Your task to perform on an android device: turn off smart reply in the gmail app Image 0: 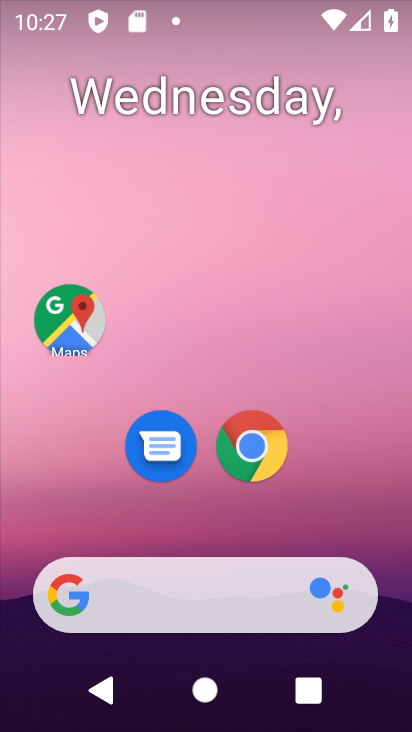
Step 0: drag from (92, 560) to (219, 143)
Your task to perform on an android device: turn off smart reply in the gmail app Image 1: 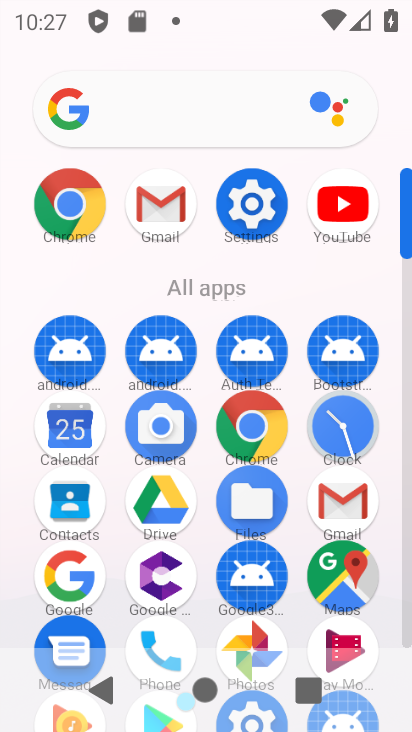
Step 1: click (352, 507)
Your task to perform on an android device: turn off smart reply in the gmail app Image 2: 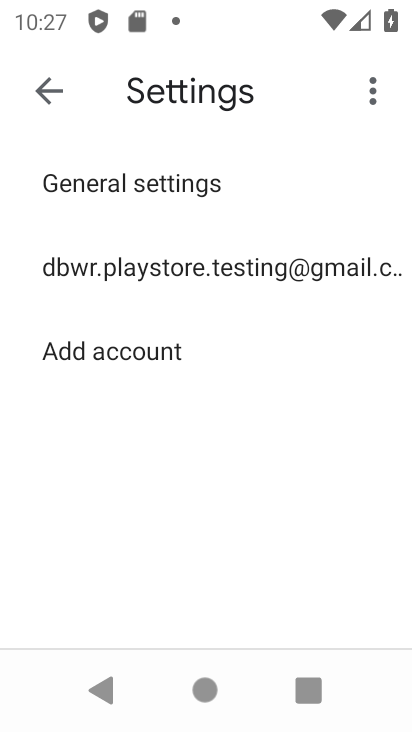
Step 2: click (62, 90)
Your task to perform on an android device: turn off smart reply in the gmail app Image 3: 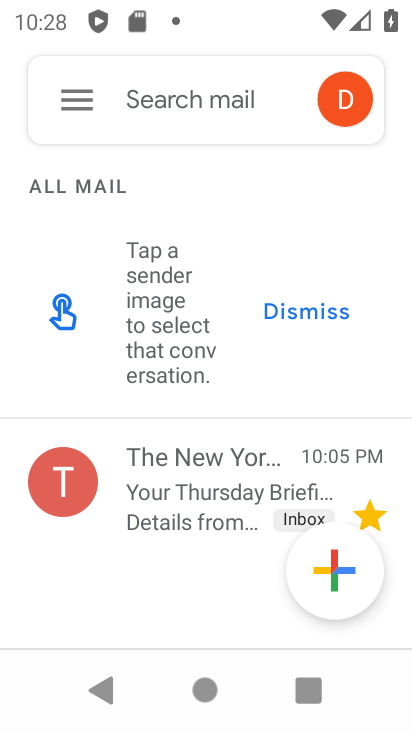
Step 3: click (79, 103)
Your task to perform on an android device: turn off smart reply in the gmail app Image 4: 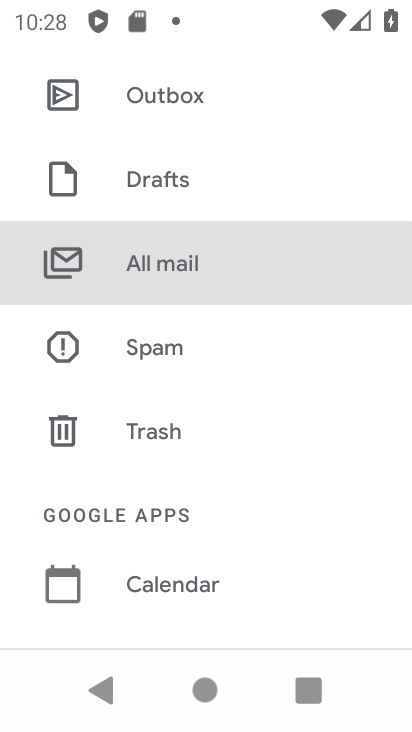
Step 4: drag from (147, 593) to (232, 282)
Your task to perform on an android device: turn off smart reply in the gmail app Image 5: 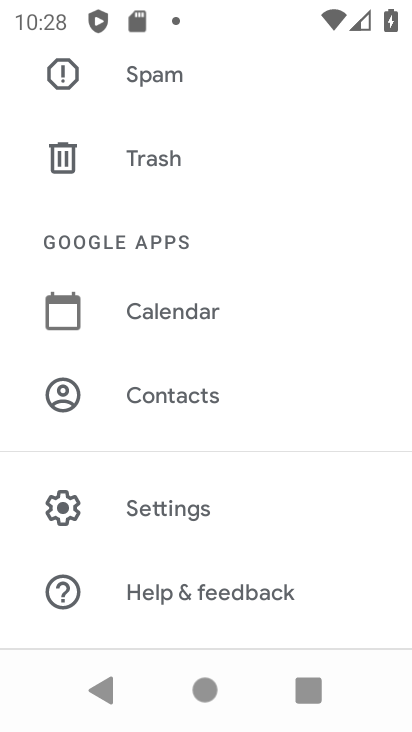
Step 5: click (173, 505)
Your task to perform on an android device: turn off smart reply in the gmail app Image 6: 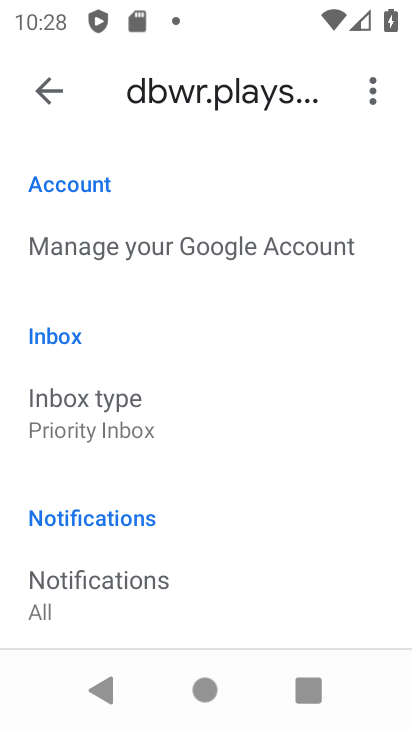
Step 6: drag from (124, 606) to (307, 132)
Your task to perform on an android device: turn off smart reply in the gmail app Image 7: 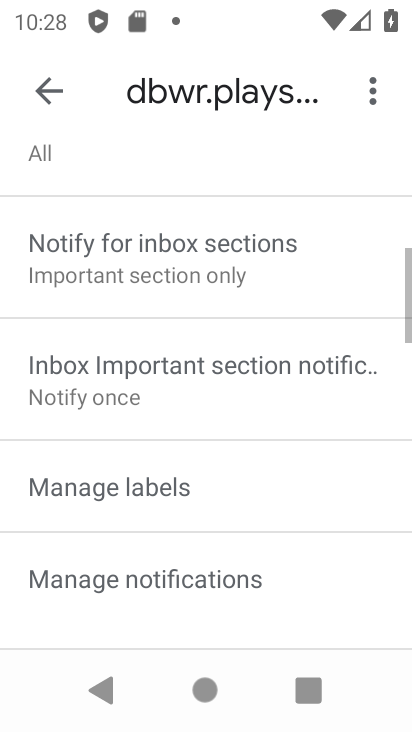
Step 7: drag from (167, 529) to (302, 203)
Your task to perform on an android device: turn off smart reply in the gmail app Image 8: 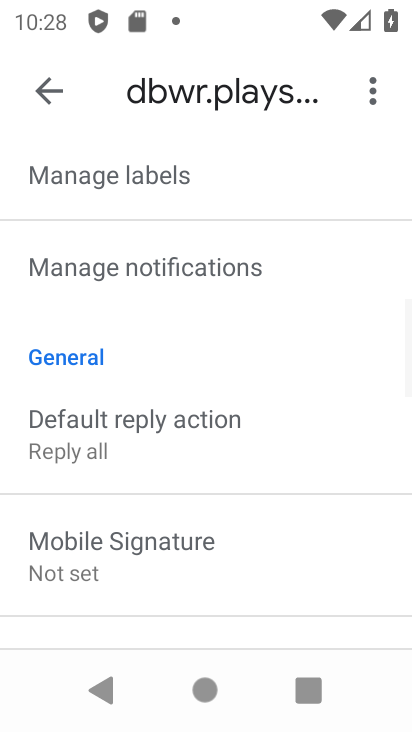
Step 8: drag from (120, 581) to (251, 225)
Your task to perform on an android device: turn off smart reply in the gmail app Image 9: 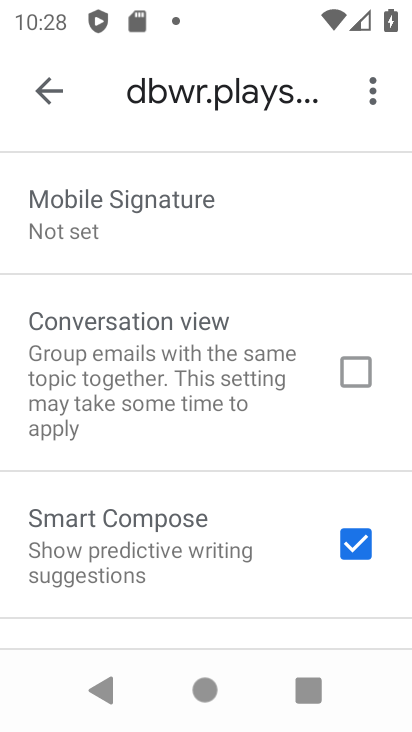
Step 9: drag from (118, 565) to (240, 277)
Your task to perform on an android device: turn off smart reply in the gmail app Image 10: 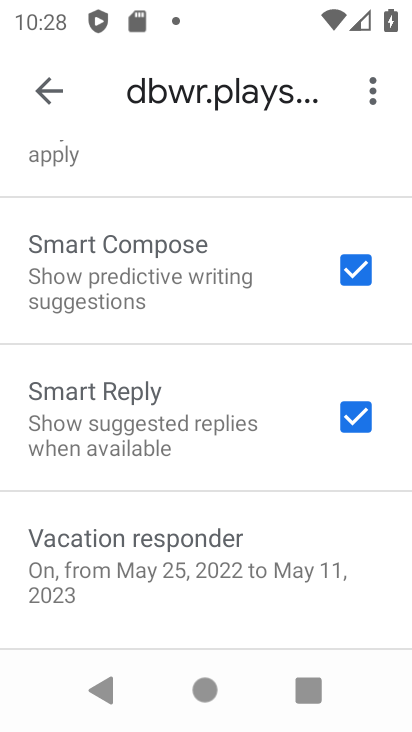
Step 10: click (355, 422)
Your task to perform on an android device: turn off smart reply in the gmail app Image 11: 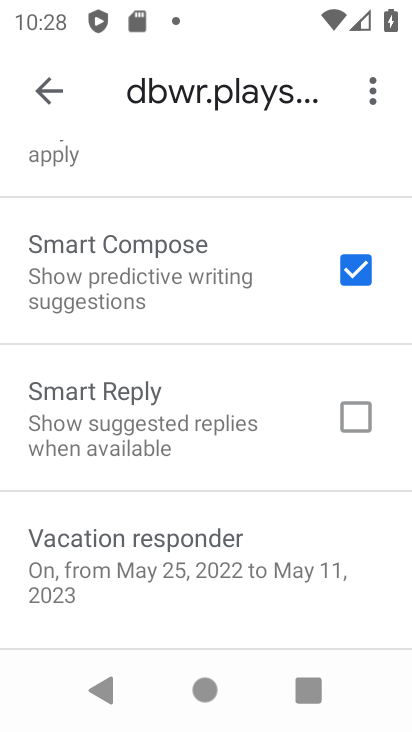
Step 11: task complete